Your task to perform on an android device: Go to Reddit.com Image 0: 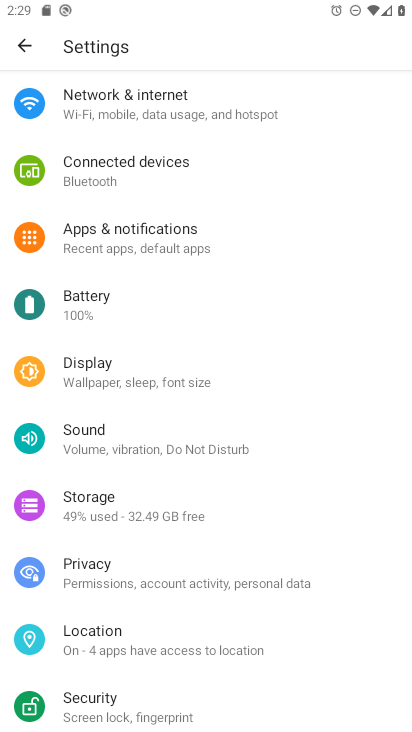
Step 0: press home button
Your task to perform on an android device: Go to Reddit.com Image 1: 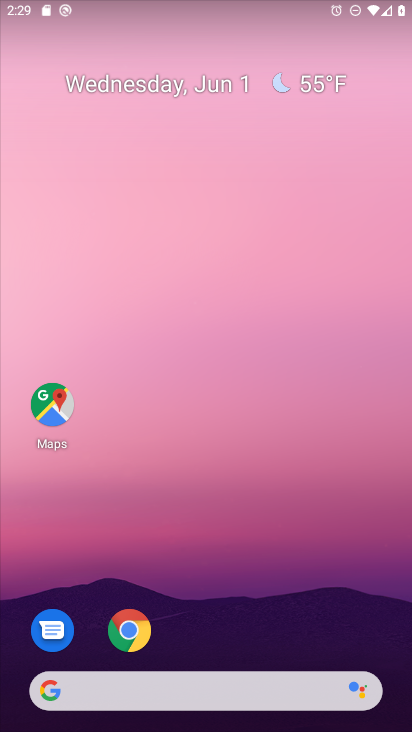
Step 1: drag from (276, 686) to (352, 80)
Your task to perform on an android device: Go to Reddit.com Image 2: 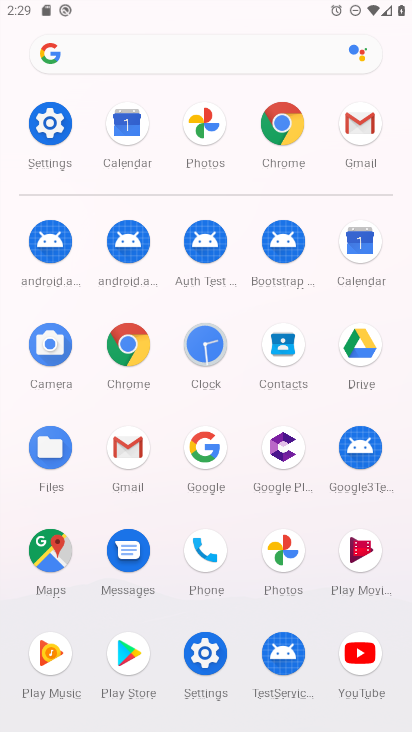
Step 2: click (137, 345)
Your task to perform on an android device: Go to Reddit.com Image 3: 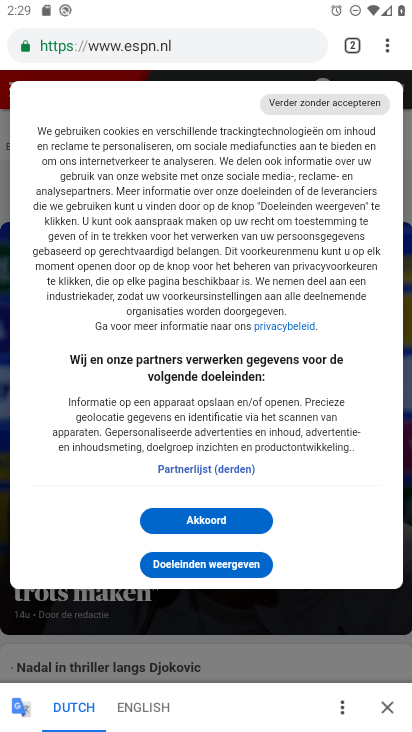
Step 3: click (166, 49)
Your task to perform on an android device: Go to Reddit.com Image 4: 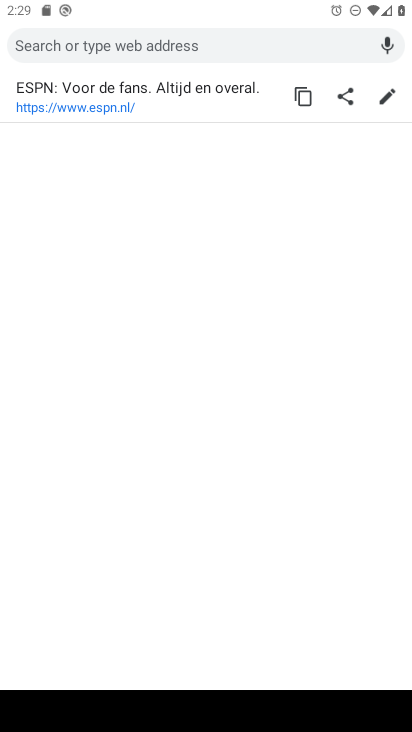
Step 4: type "reddit.com"
Your task to perform on an android device: Go to Reddit.com Image 5: 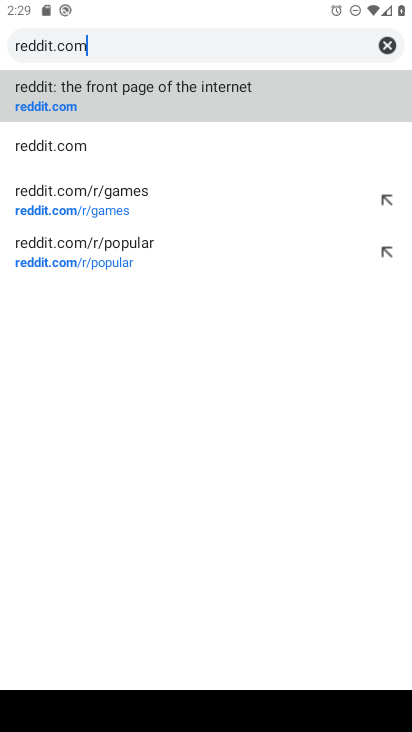
Step 5: click (124, 86)
Your task to perform on an android device: Go to Reddit.com Image 6: 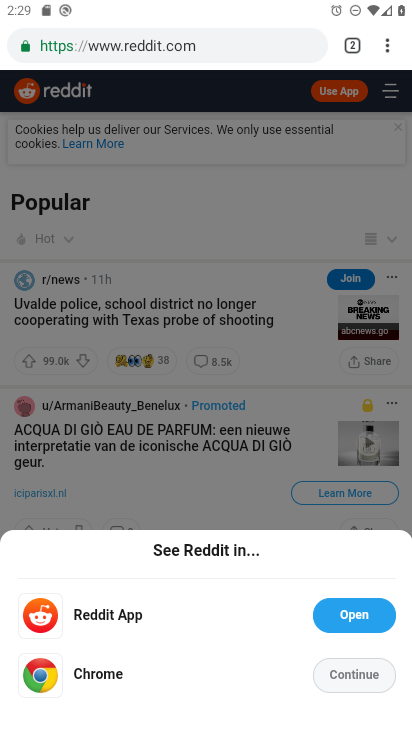
Step 6: task complete